Your task to perform on an android device: Open location settings Image 0: 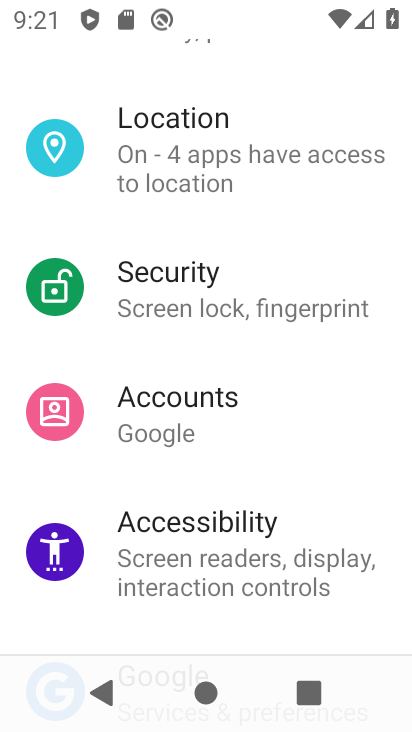
Step 0: press home button
Your task to perform on an android device: Open location settings Image 1: 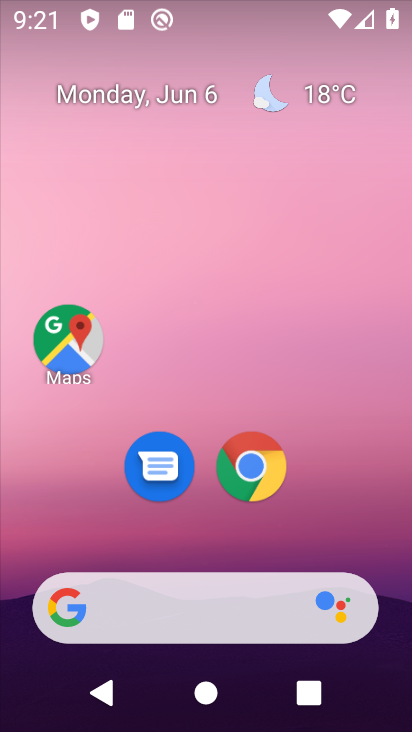
Step 1: drag from (178, 551) to (262, 34)
Your task to perform on an android device: Open location settings Image 2: 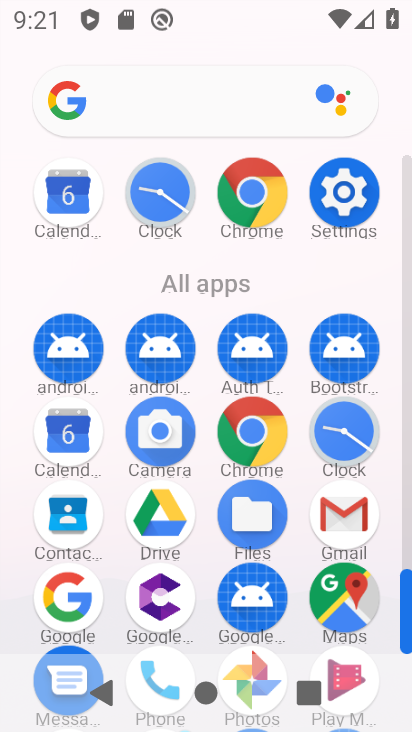
Step 2: click (343, 194)
Your task to perform on an android device: Open location settings Image 3: 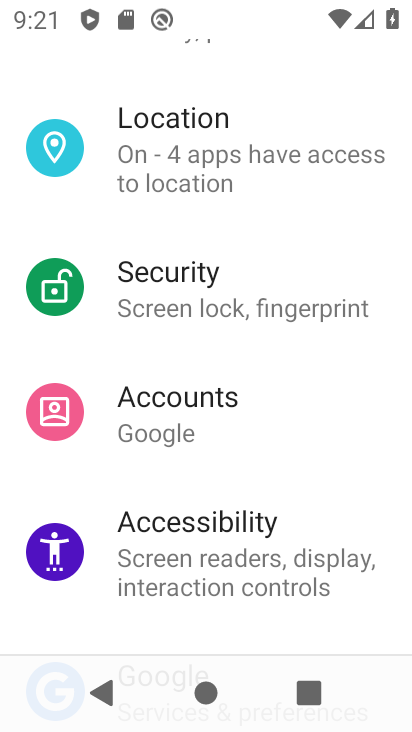
Step 3: click (172, 170)
Your task to perform on an android device: Open location settings Image 4: 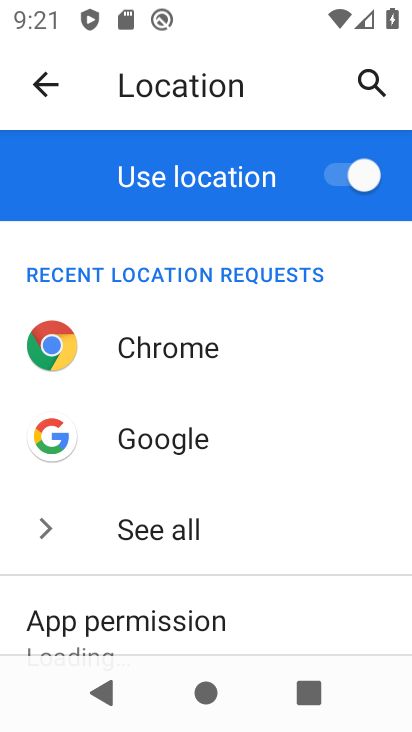
Step 4: task complete